Your task to perform on an android device: remove spam from my inbox in the gmail app Image 0: 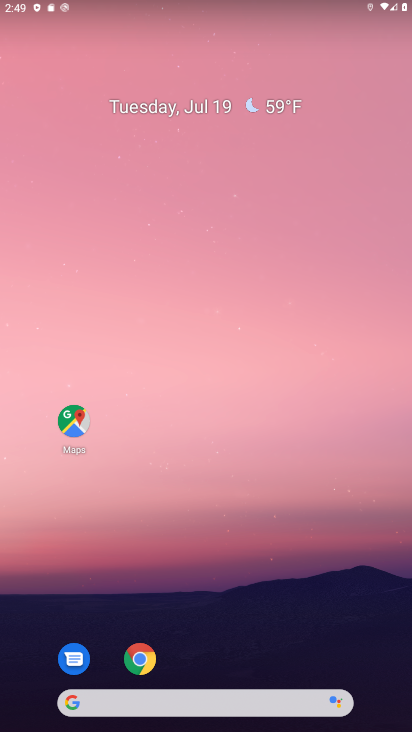
Step 0: drag from (201, 705) to (240, 131)
Your task to perform on an android device: remove spam from my inbox in the gmail app Image 1: 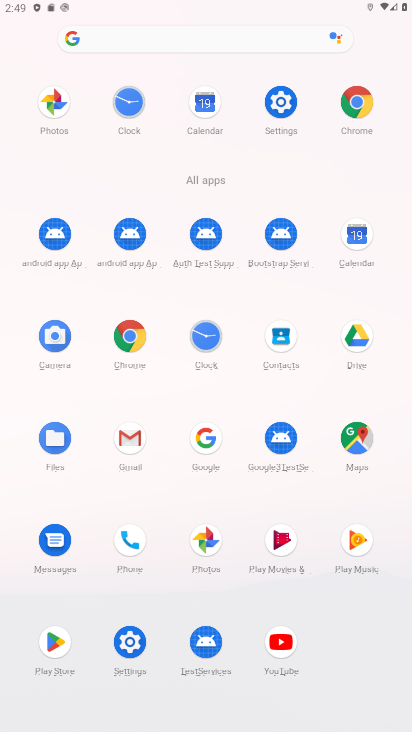
Step 1: click (130, 436)
Your task to perform on an android device: remove spam from my inbox in the gmail app Image 2: 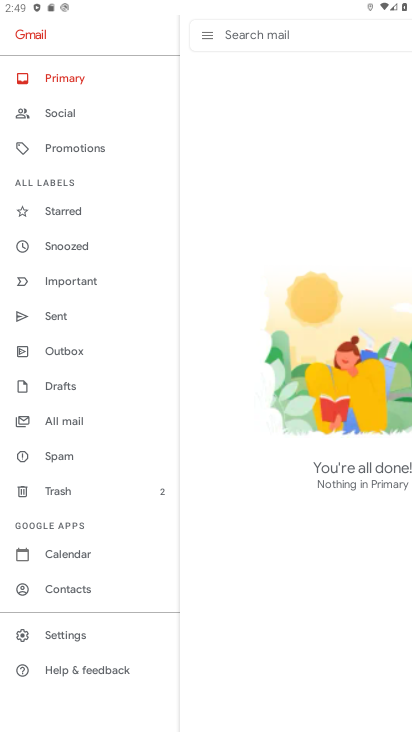
Step 2: click (74, 461)
Your task to perform on an android device: remove spam from my inbox in the gmail app Image 3: 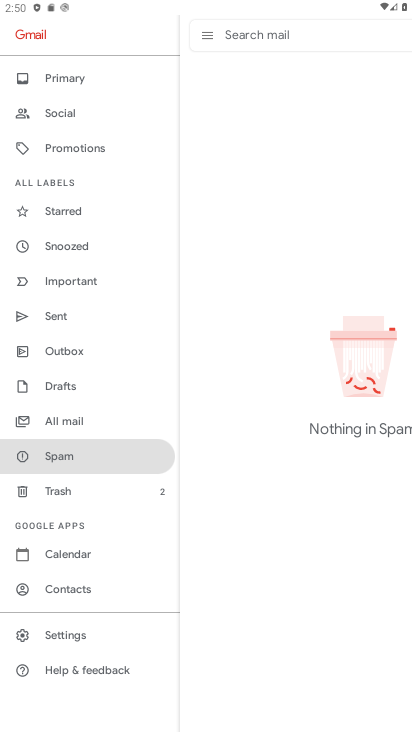
Step 3: task complete